Your task to perform on an android device: empty trash in the gmail app Image 0: 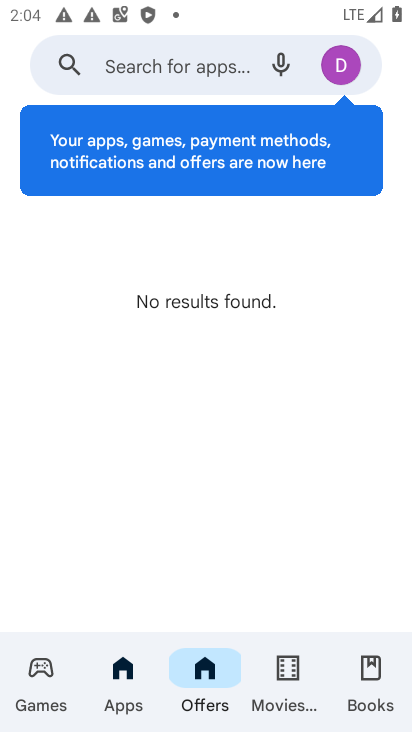
Step 0: press back button
Your task to perform on an android device: empty trash in the gmail app Image 1: 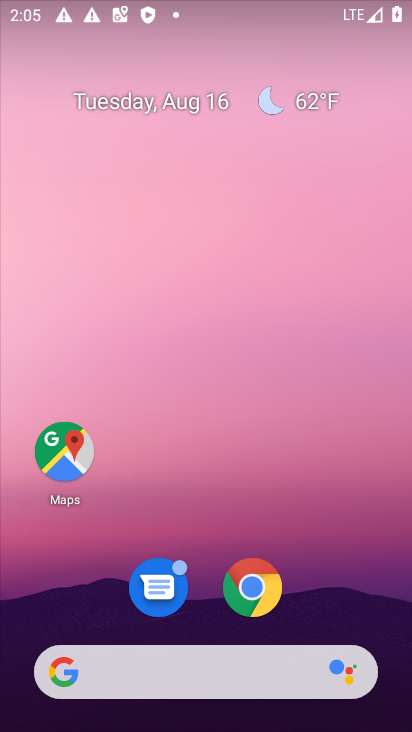
Step 1: drag from (232, 611) to (232, 75)
Your task to perform on an android device: empty trash in the gmail app Image 2: 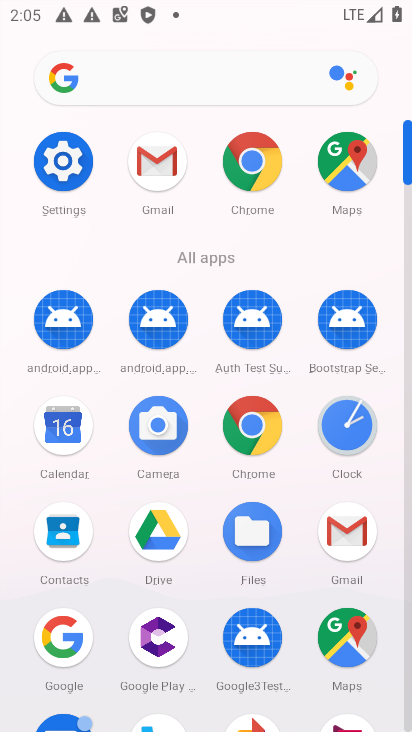
Step 2: click (164, 160)
Your task to perform on an android device: empty trash in the gmail app Image 3: 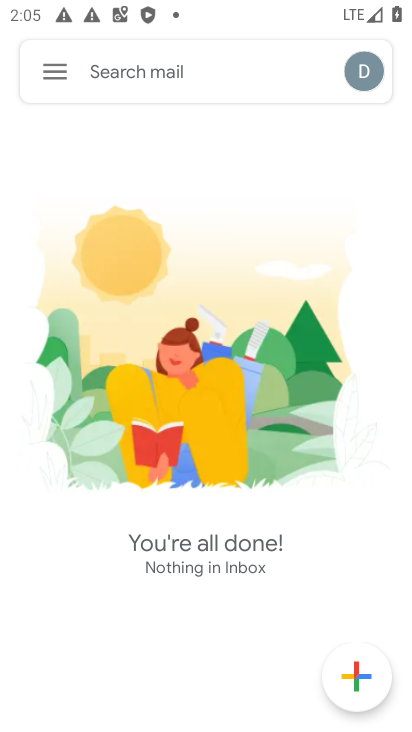
Step 3: click (51, 51)
Your task to perform on an android device: empty trash in the gmail app Image 4: 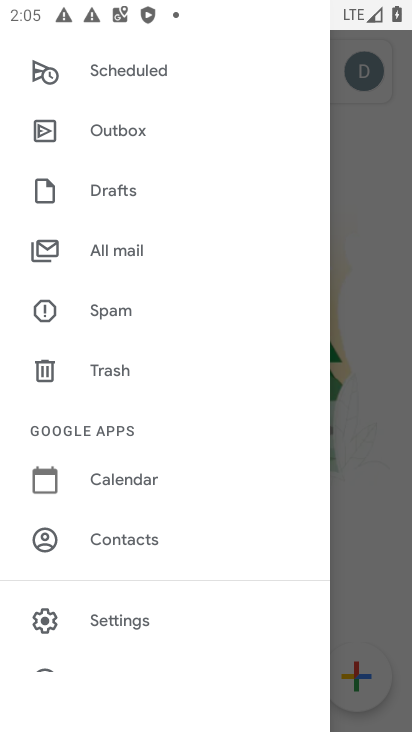
Step 4: click (111, 370)
Your task to perform on an android device: empty trash in the gmail app Image 5: 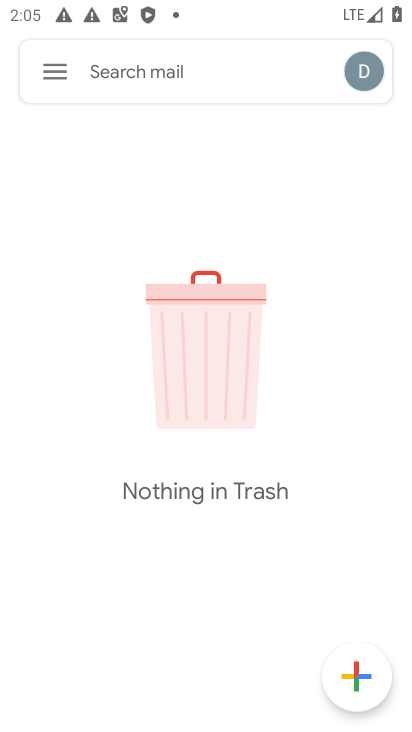
Step 5: task complete